Your task to perform on an android device: open a new tab in the chrome app Image 0: 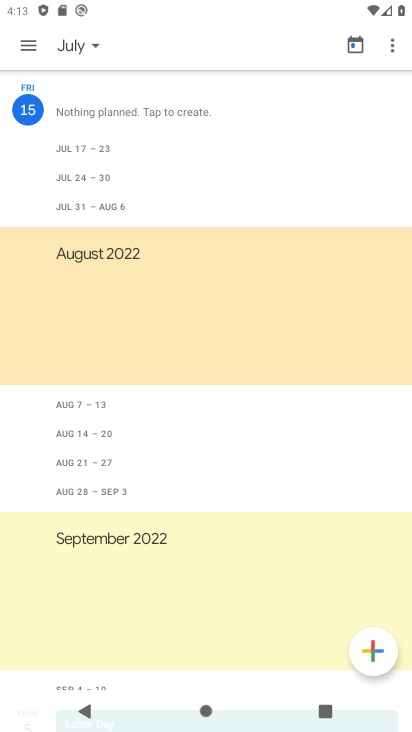
Step 0: press home button
Your task to perform on an android device: open a new tab in the chrome app Image 1: 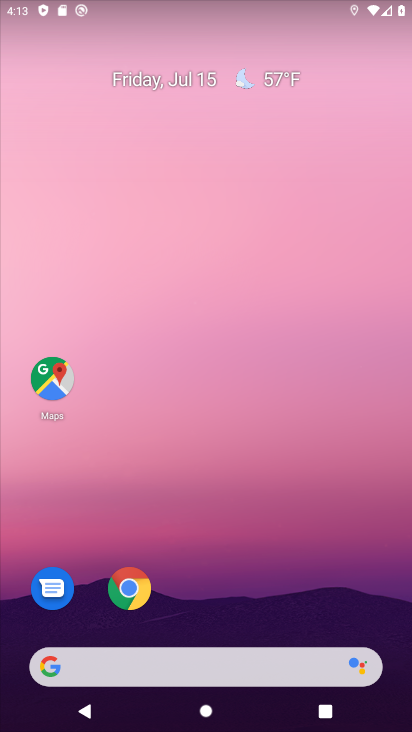
Step 1: click (131, 590)
Your task to perform on an android device: open a new tab in the chrome app Image 2: 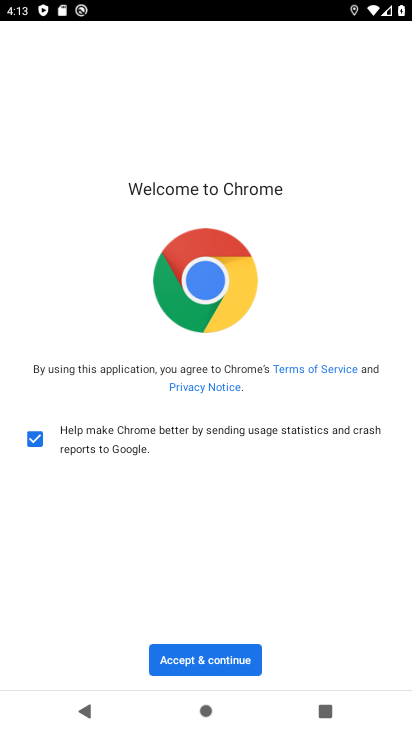
Step 2: click (227, 664)
Your task to perform on an android device: open a new tab in the chrome app Image 3: 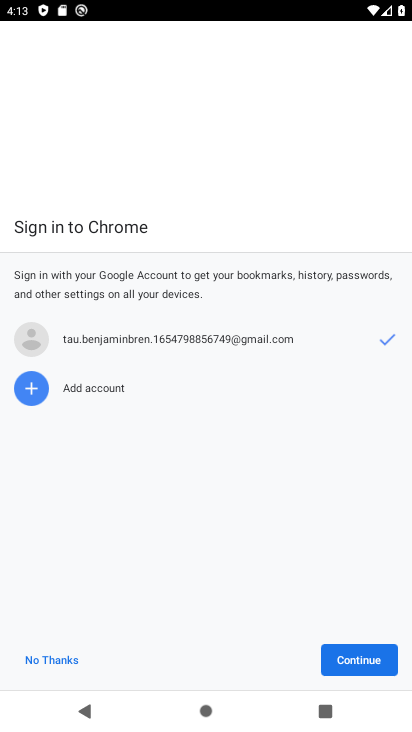
Step 3: click (338, 659)
Your task to perform on an android device: open a new tab in the chrome app Image 4: 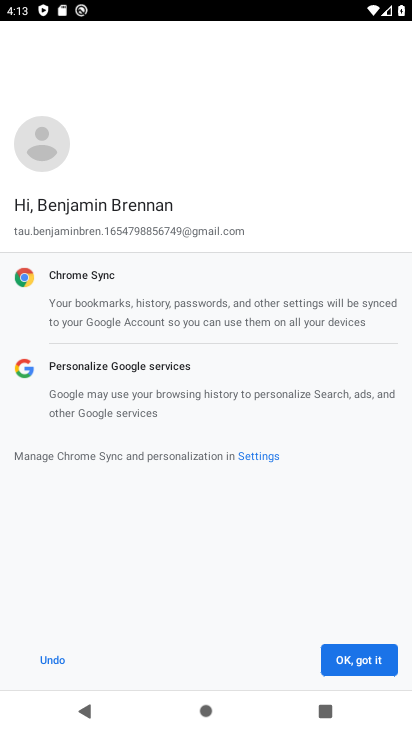
Step 4: click (338, 659)
Your task to perform on an android device: open a new tab in the chrome app Image 5: 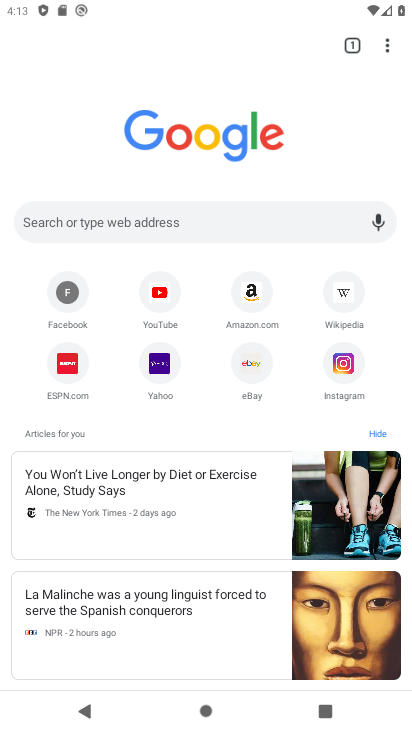
Step 5: click (388, 44)
Your task to perform on an android device: open a new tab in the chrome app Image 6: 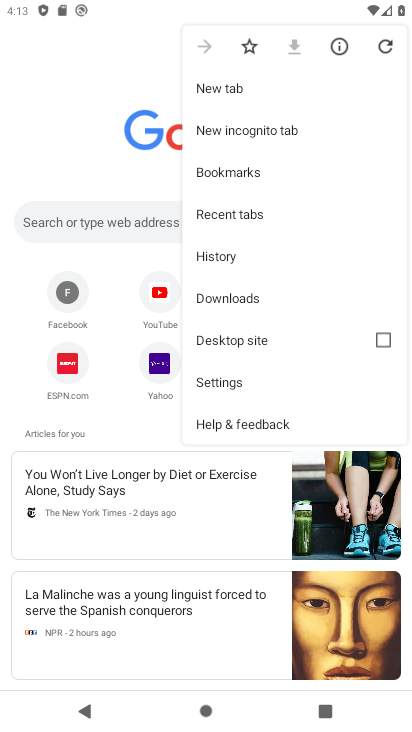
Step 6: click (233, 87)
Your task to perform on an android device: open a new tab in the chrome app Image 7: 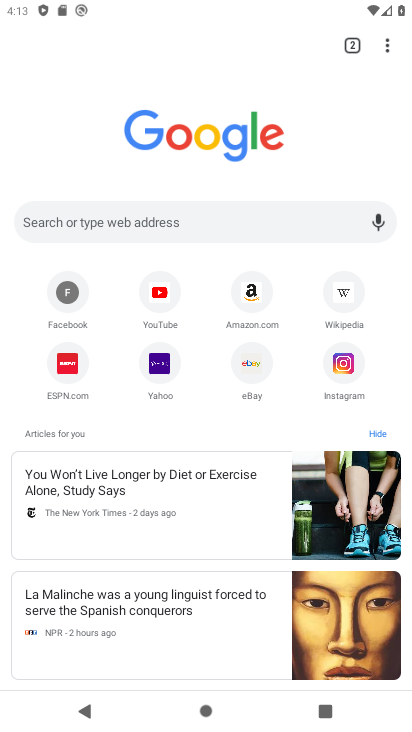
Step 7: task complete